Your task to perform on an android device: delete location history Image 0: 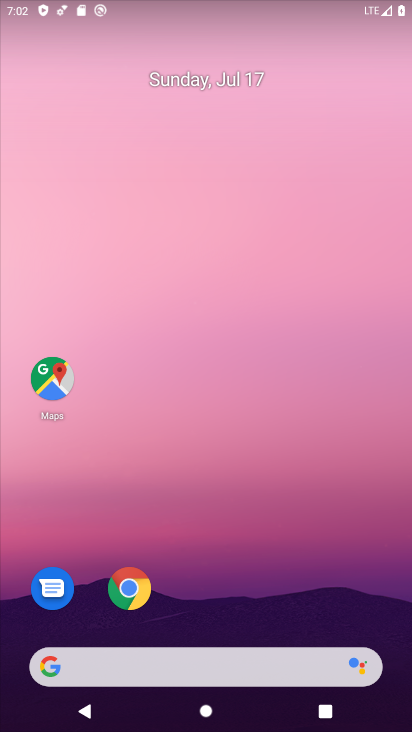
Step 0: drag from (391, 605) to (282, 36)
Your task to perform on an android device: delete location history Image 1: 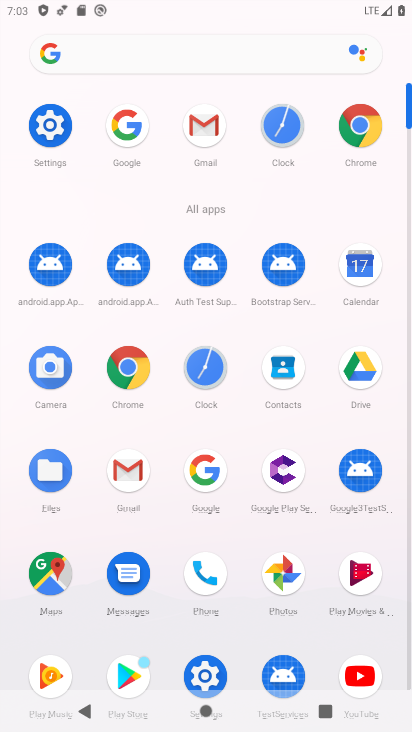
Step 1: click (206, 664)
Your task to perform on an android device: delete location history Image 2: 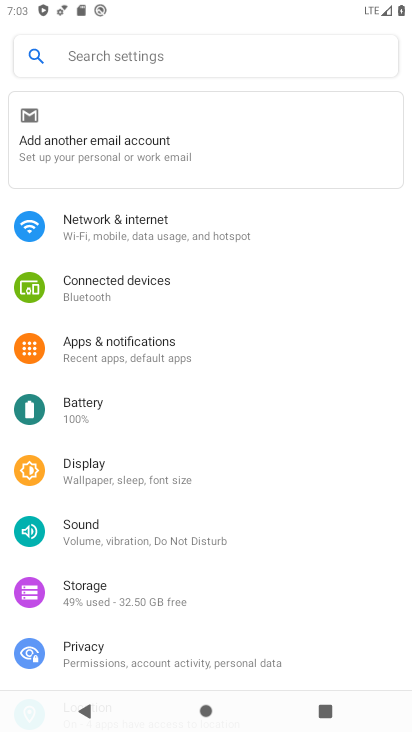
Step 2: drag from (96, 635) to (145, 187)
Your task to perform on an android device: delete location history Image 3: 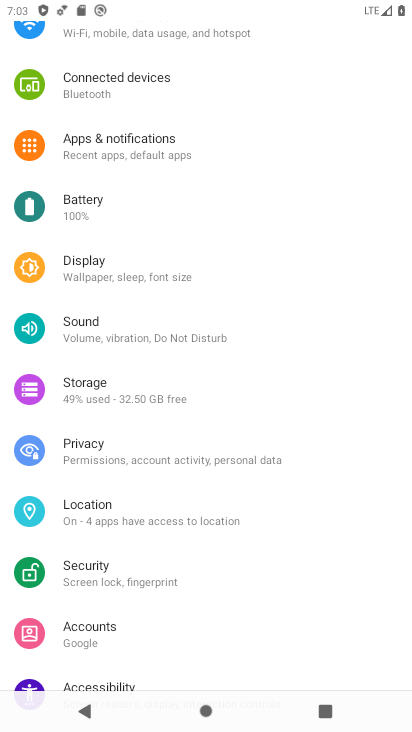
Step 3: click (133, 504)
Your task to perform on an android device: delete location history Image 4: 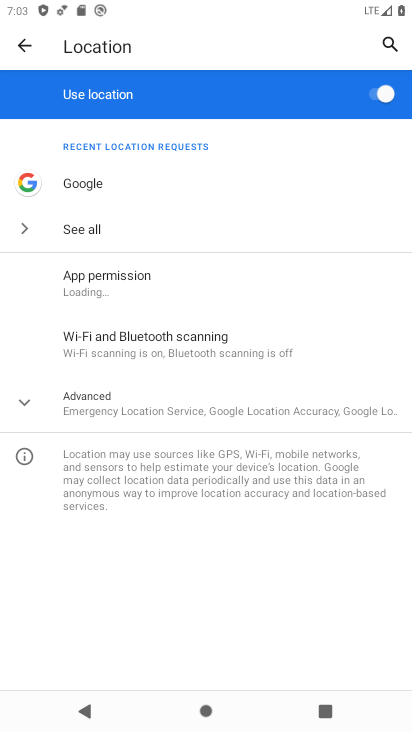
Step 4: click (118, 399)
Your task to perform on an android device: delete location history Image 5: 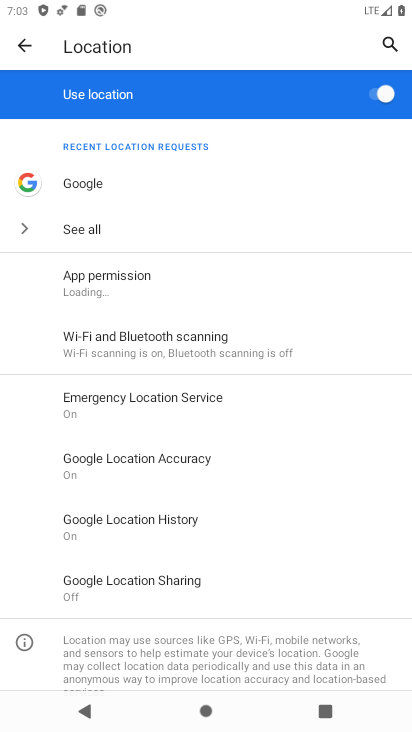
Step 5: click (145, 513)
Your task to perform on an android device: delete location history Image 6: 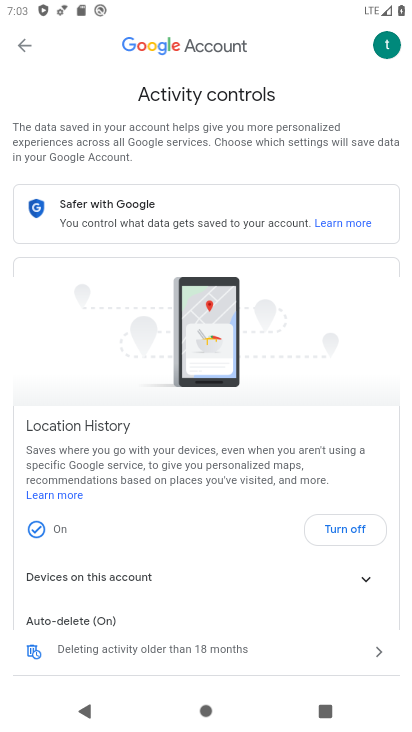
Step 6: click (195, 643)
Your task to perform on an android device: delete location history Image 7: 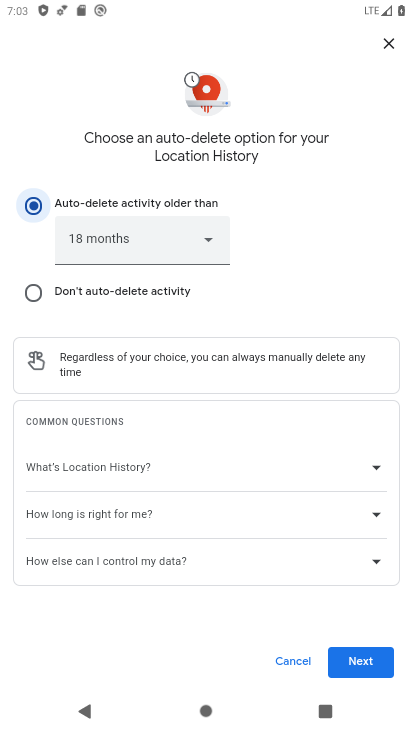
Step 7: click (370, 673)
Your task to perform on an android device: delete location history Image 8: 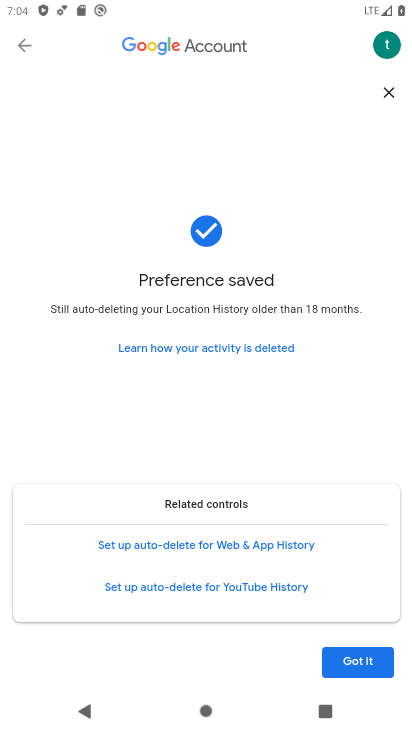
Step 8: click (367, 658)
Your task to perform on an android device: delete location history Image 9: 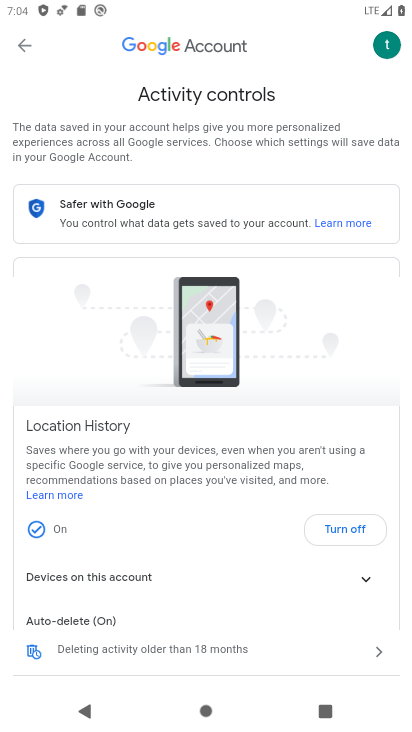
Step 9: task complete